Your task to perform on an android device: turn on the 12-hour format for clock Image 0: 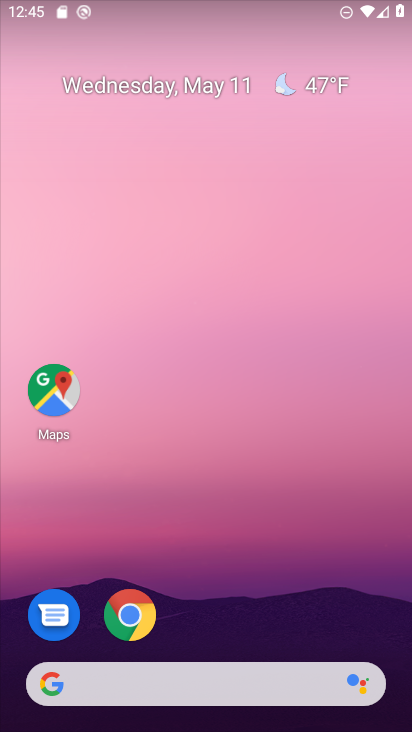
Step 0: drag from (320, 549) to (268, 0)
Your task to perform on an android device: turn on the 12-hour format for clock Image 1: 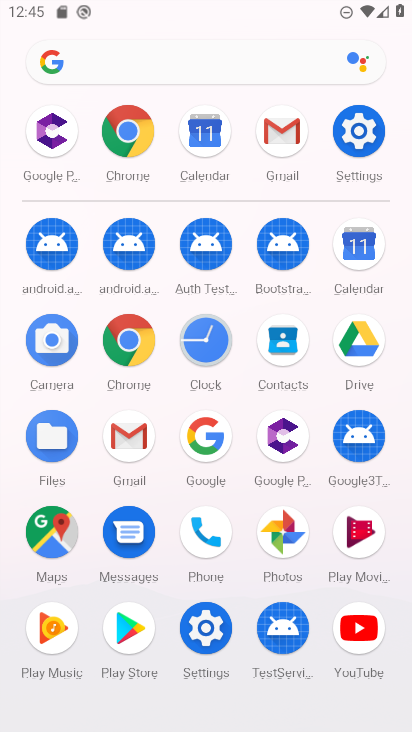
Step 1: click (206, 343)
Your task to perform on an android device: turn on the 12-hour format for clock Image 2: 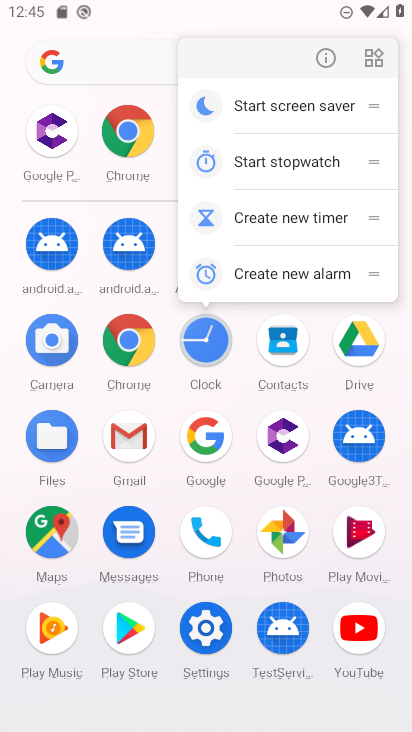
Step 2: click (206, 343)
Your task to perform on an android device: turn on the 12-hour format for clock Image 3: 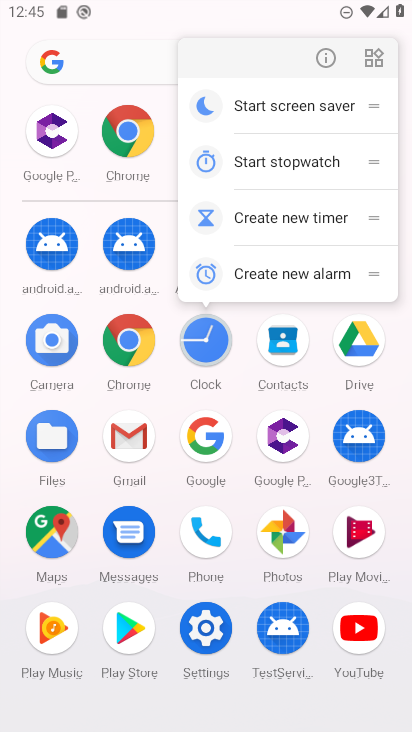
Step 3: click (205, 328)
Your task to perform on an android device: turn on the 12-hour format for clock Image 4: 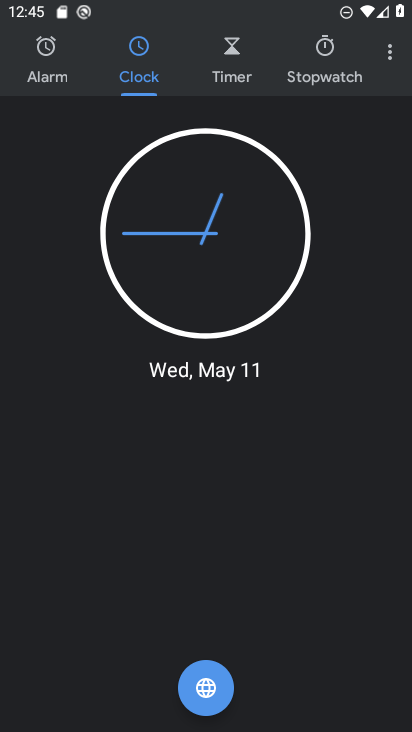
Step 4: click (402, 54)
Your task to perform on an android device: turn on the 12-hour format for clock Image 5: 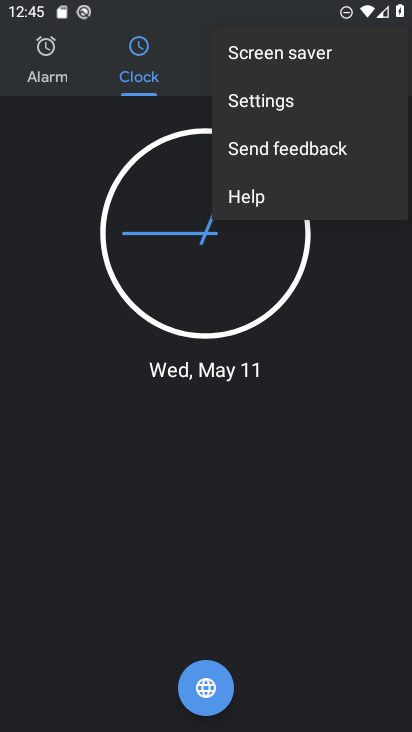
Step 5: click (260, 97)
Your task to perform on an android device: turn on the 12-hour format for clock Image 6: 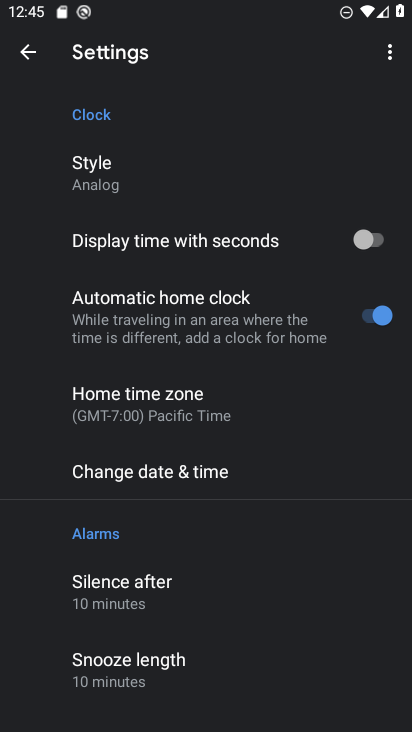
Step 6: drag from (204, 615) to (172, 279)
Your task to perform on an android device: turn on the 12-hour format for clock Image 7: 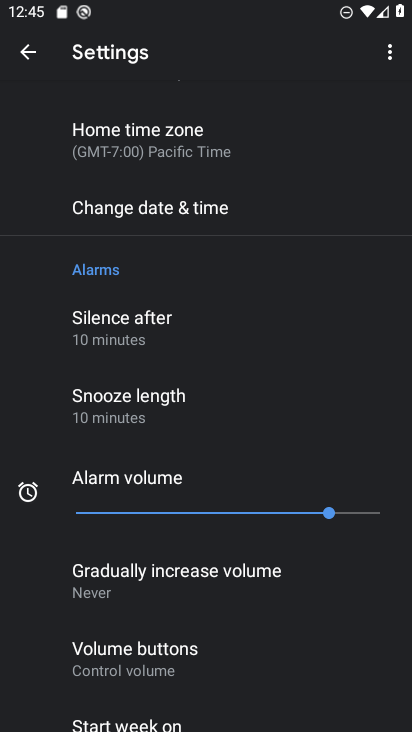
Step 7: drag from (179, 637) to (126, 332)
Your task to perform on an android device: turn on the 12-hour format for clock Image 8: 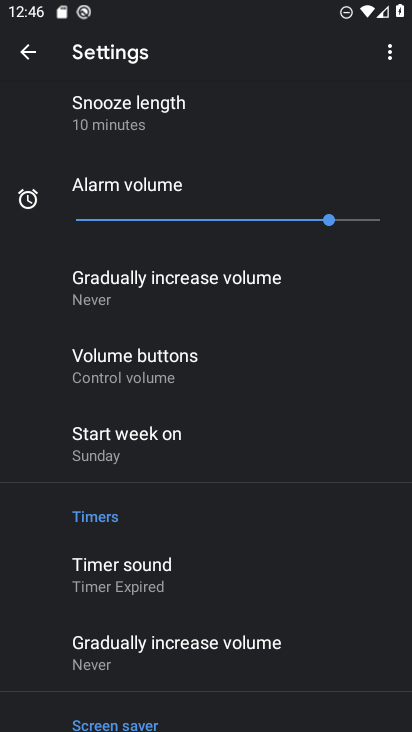
Step 8: drag from (180, 204) to (195, 586)
Your task to perform on an android device: turn on the 12-hour format for clock Image 9: 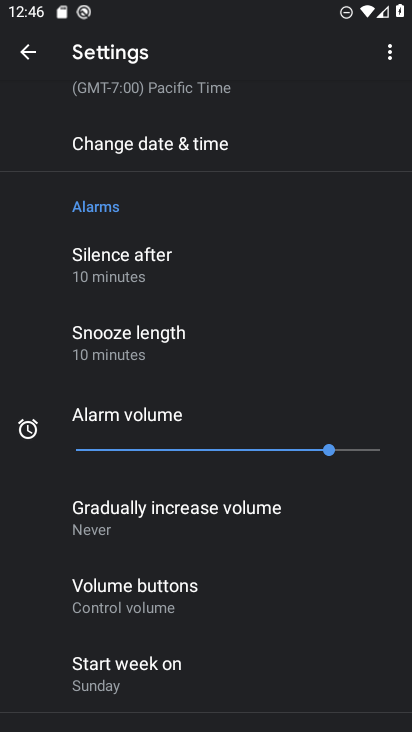
Step 9: click (149, 160)
Your task to perform on an android device: turn on the 12-hour format for clock Image 10: 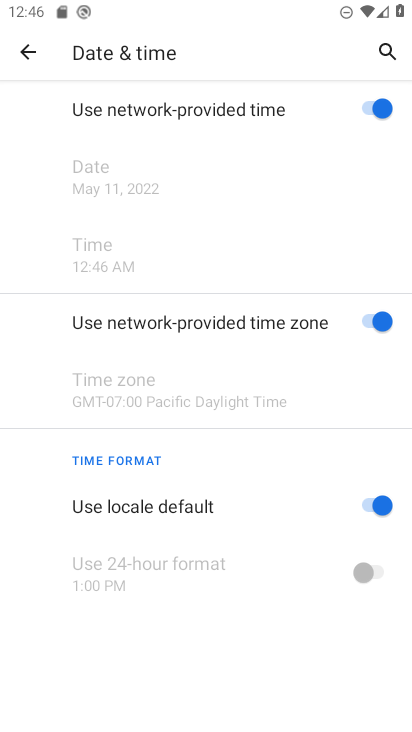
Step 10: click (373, 506)
Your task to perform on an android device: turn on the 12-hour format for clock Image 11: 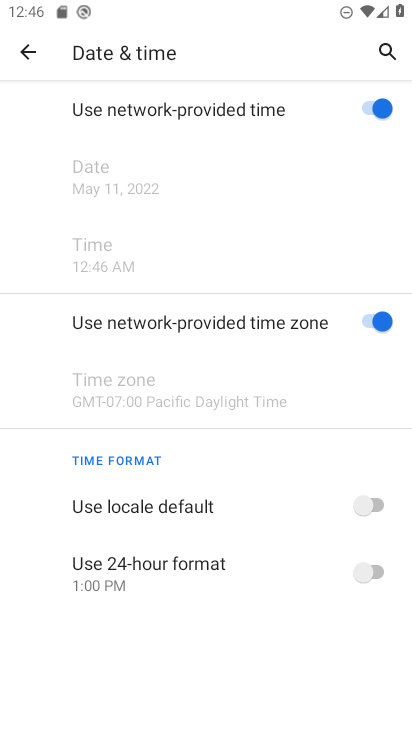
Step 11: click (374, 515)
Your task to perform on an android device: turn on the 12-hour format for clock Image 12: 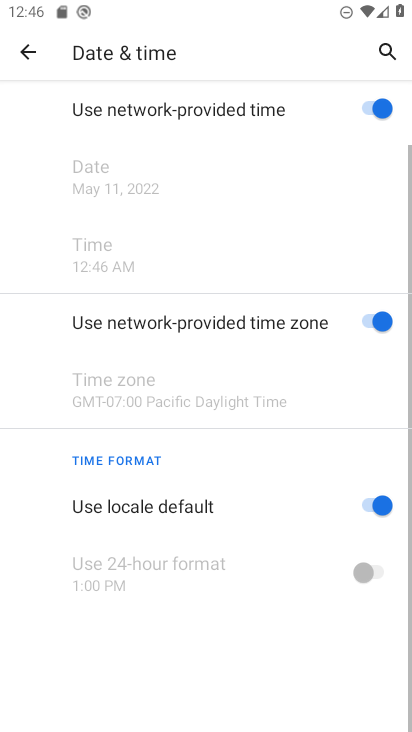
Step 12: click (379, 575)
Your task to perform on an android device: turn on the 12-hour format for clock Image 13: 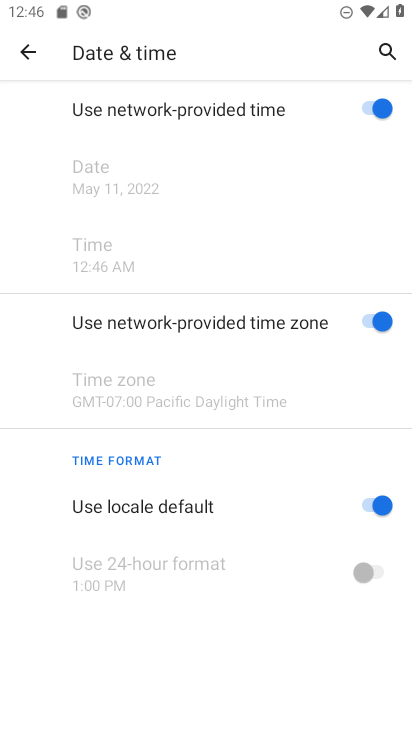
Step 13: task complete